Your task to perform on an android device: Open privacy settings Image 0: 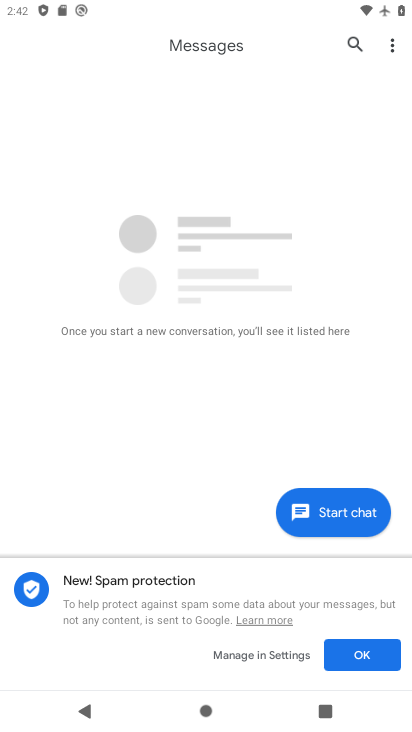
Step 0: press home button
Your task to perform on an android device: Open privacy settings Image 1: 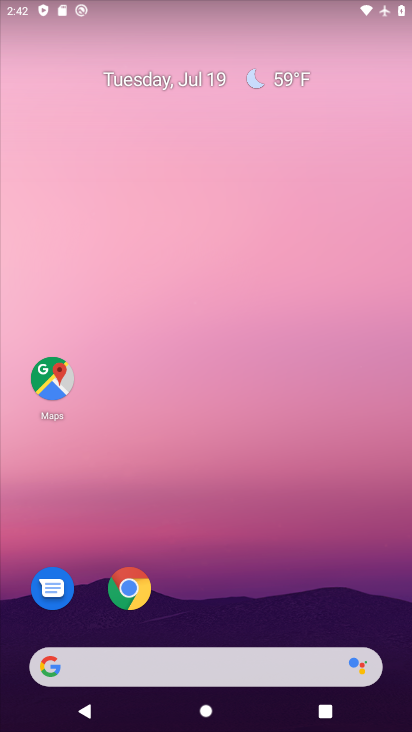
Step 1: drag from (194, 610) to (225, 166)
Your task to perform on an android device: Open privacy settings Image 2: 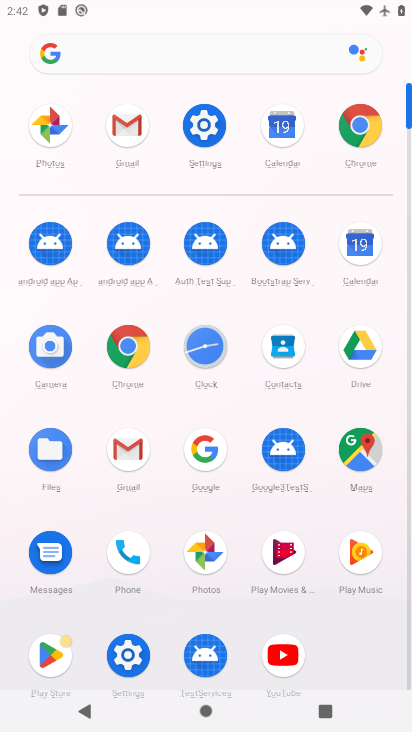
Step 2: click (209, 138)
Your task to perform on an android device: Open privacy settings Image 3: 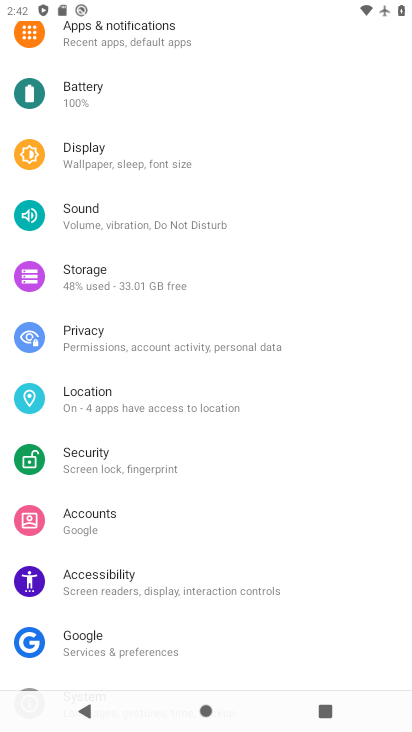
Step 3: click (80, 344)
Your task to perform on an android device: Open privacy settings Image 4: 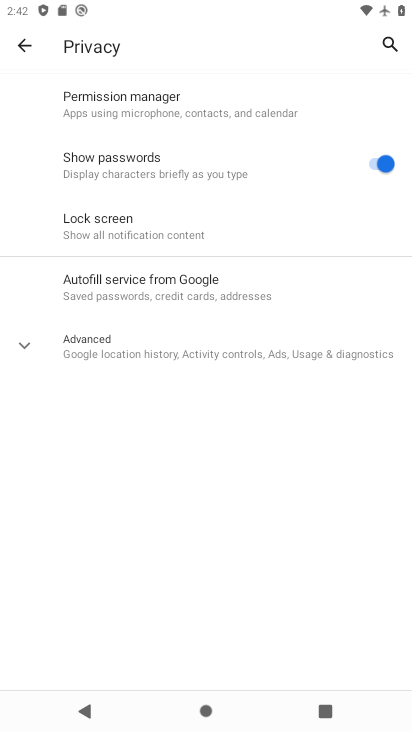
Step 4: task complete